Your task to perform on an android device: open wifi settings Image 0: 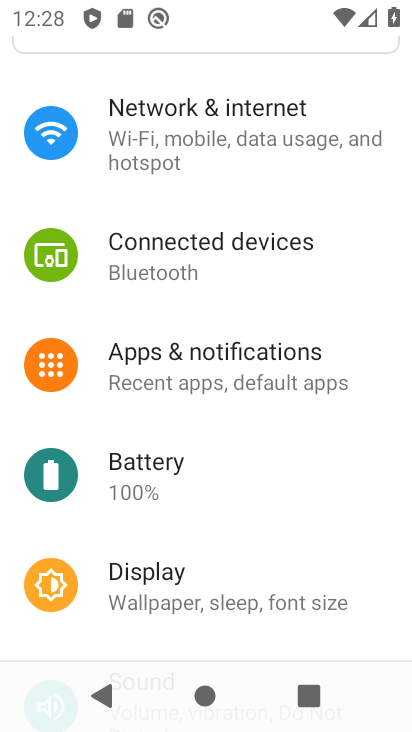
Step 0: click (284, 137)
Your task to perform on an android device: open wifi settings Image 1: 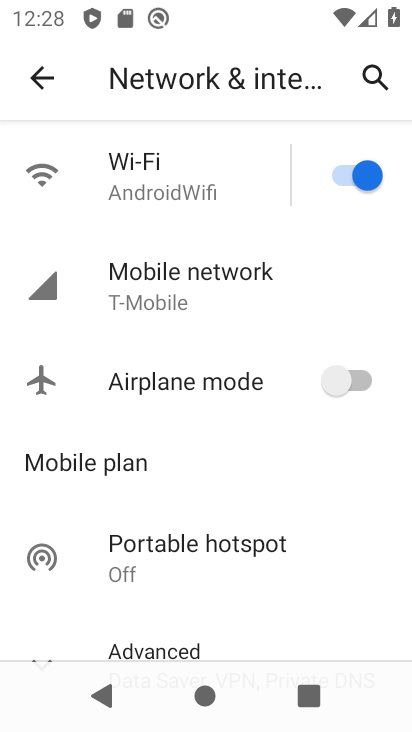
Step 1: click (201, 171)
Your task to perform on an android device: open wifi settings Image 2: 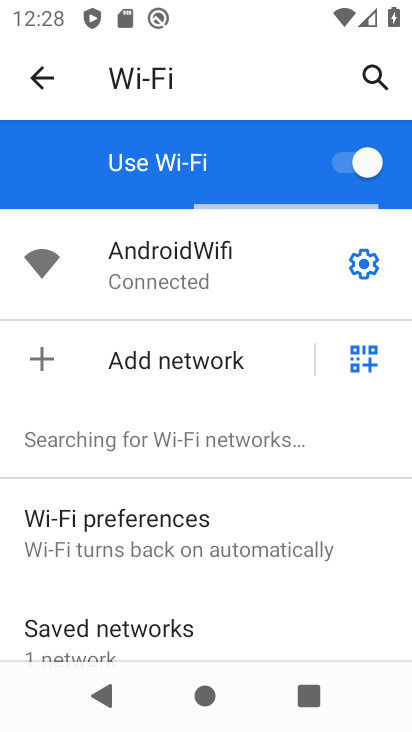
Step 2: task complete